Your task to perform on an android device: What is the news today? Image 0: 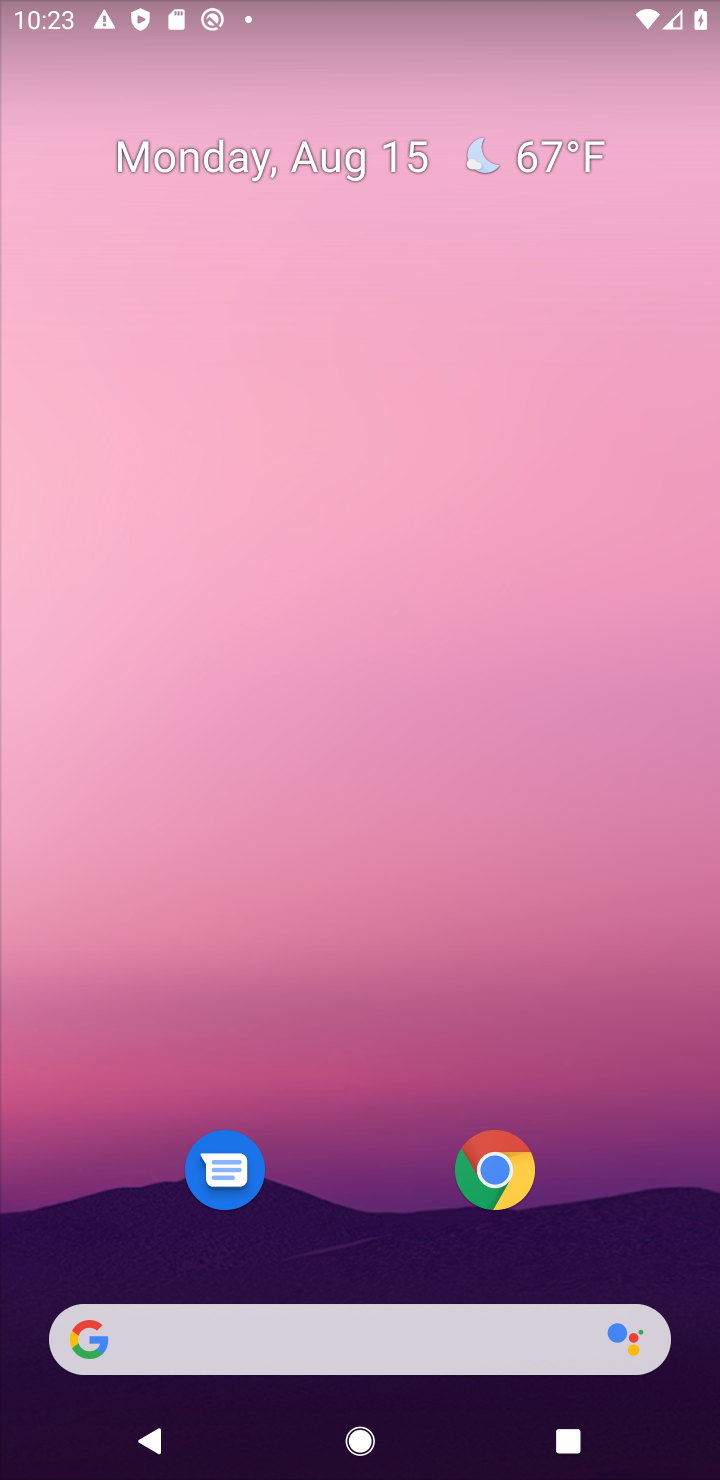
Step 0: press home button
Your task to perform on an android device: What is the news today? Image 1: 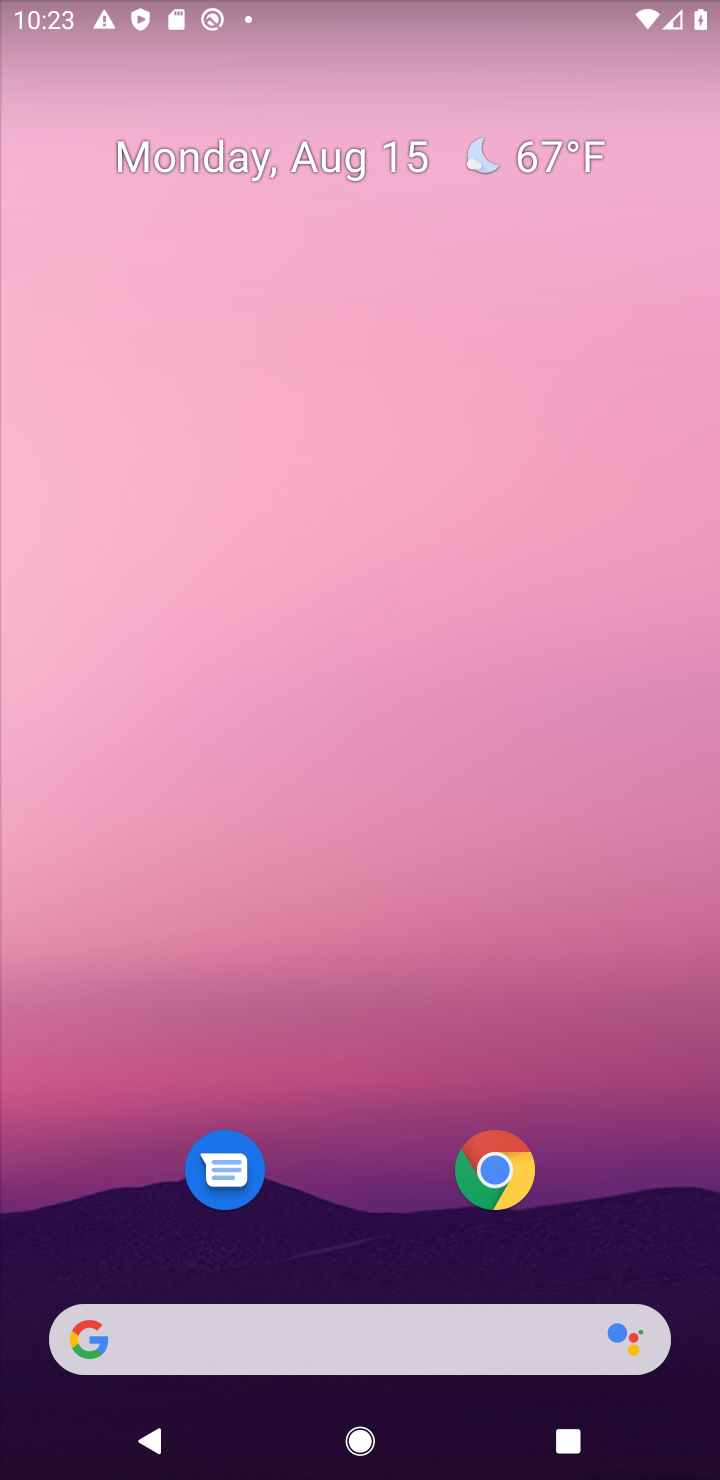
Step 1: drag from (158, 721) to (719, 756)
Your task to perform on an android device: What is the news today? Image 2: 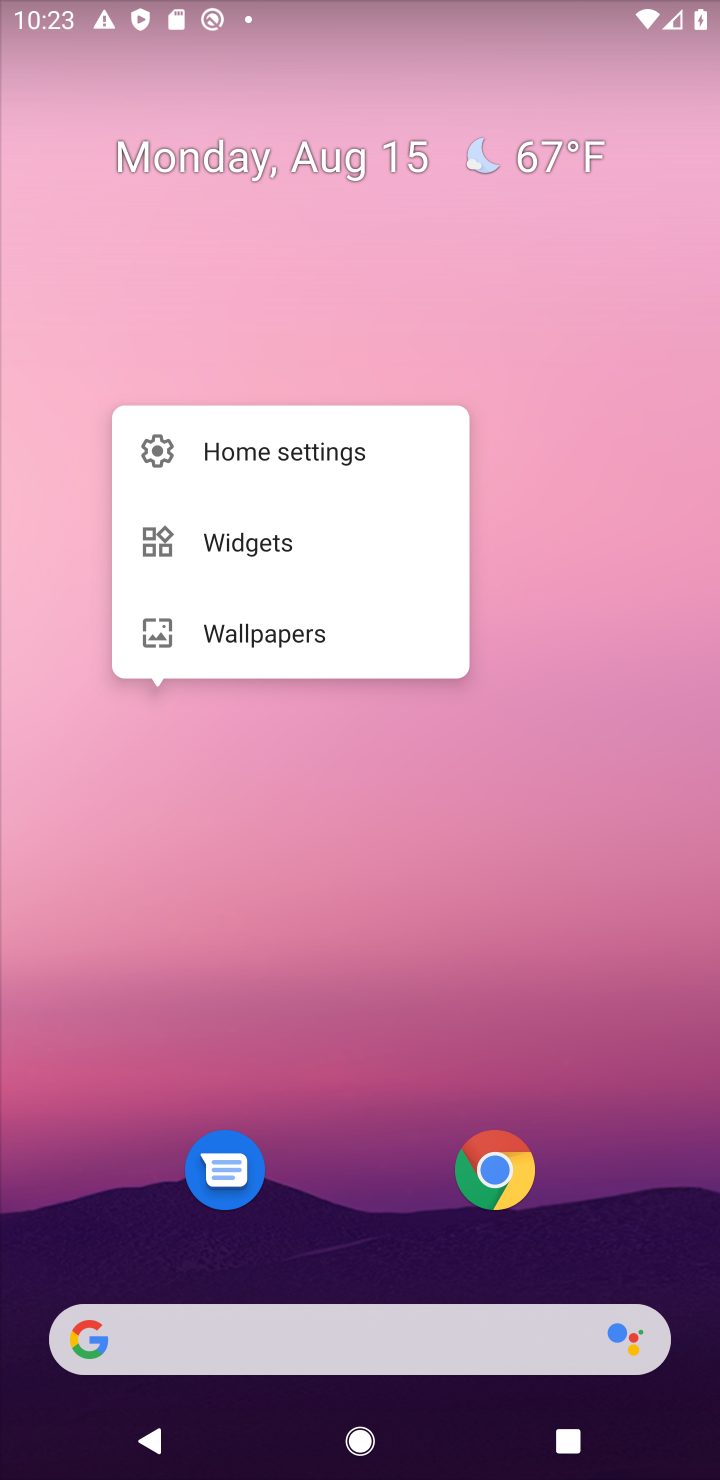
Step 2: click (256, 859)
Your task to perform on an android device: What is the news today? Image 3: 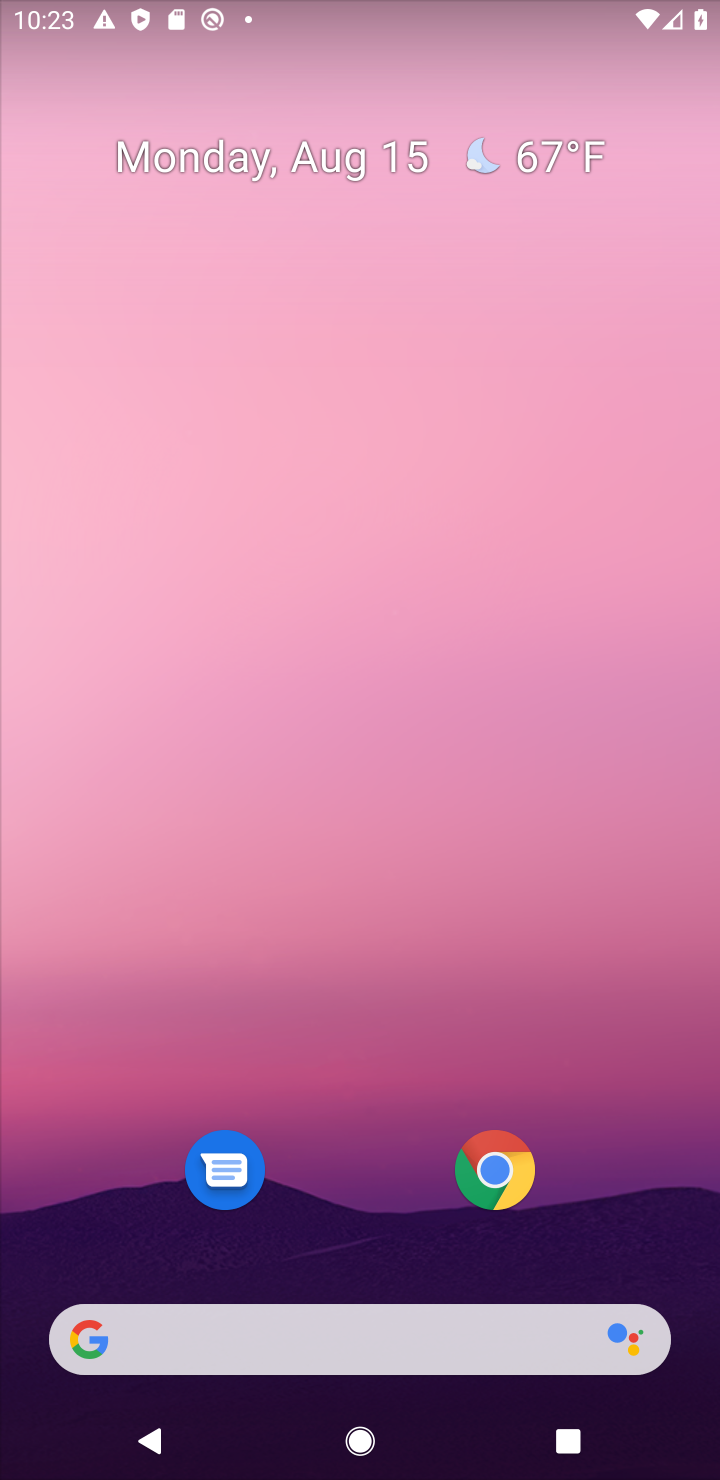
Step 3: task complete